Your task to perform on an android device: Search for "bose quietcomfort 35" on target, select the first entry, add it to the cart, then select checkout. Image 0: 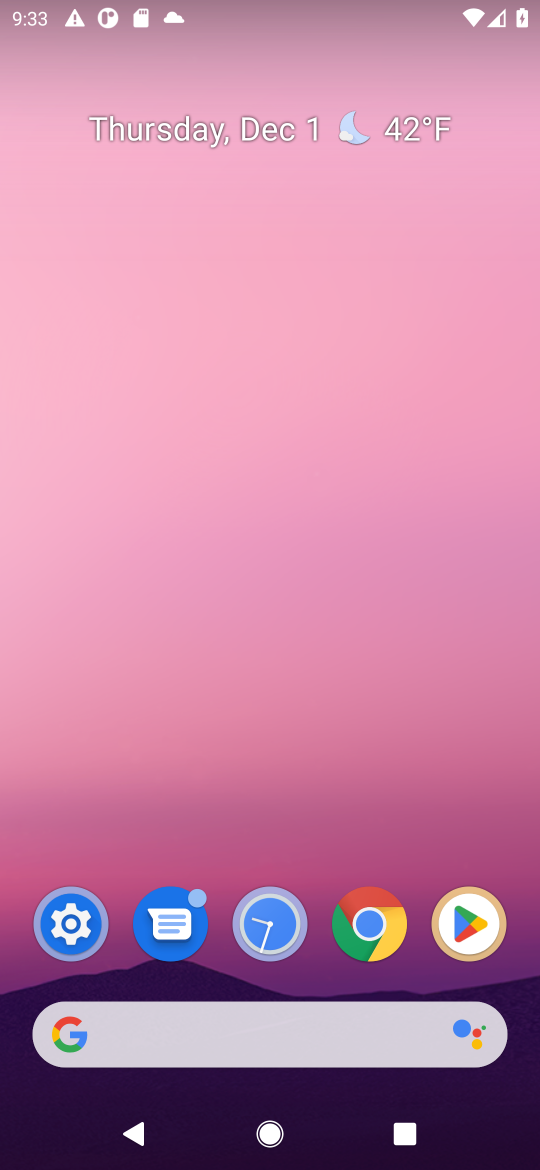
Step 0: click (313, 1037)
Your task to perform on an android device: Search for "bose quietcomfort 35" on target, select the first entry, add it to the cart, then select checkout. Image 1: 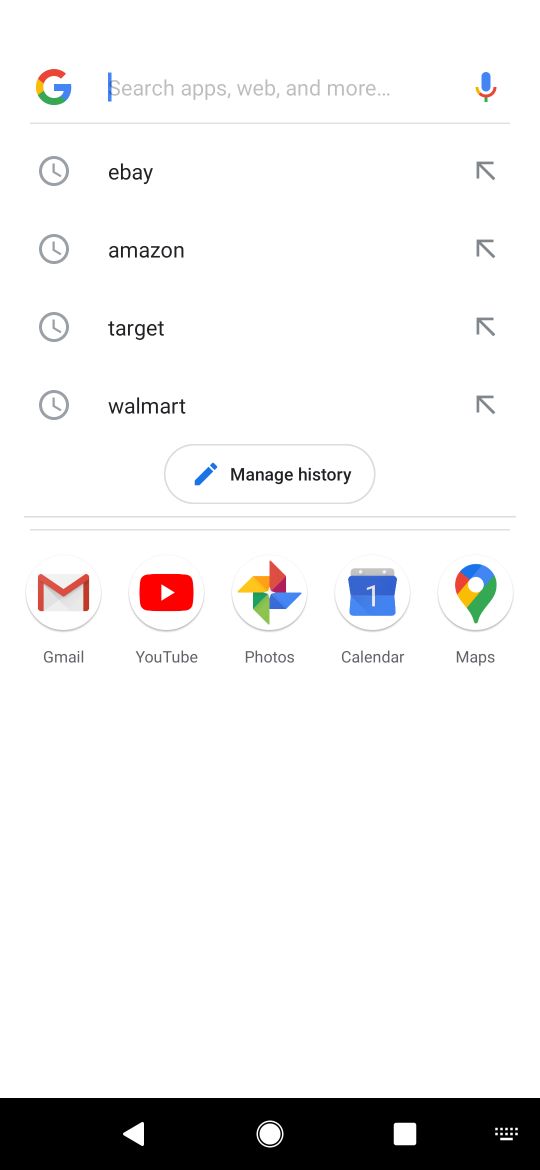
Step 1: type "bose quitconfiort"
Your task to perform on an android device: Search for "bose quietcomfort 35" on target, select the first entry, add it to the cart, then select checkout. Image 2: 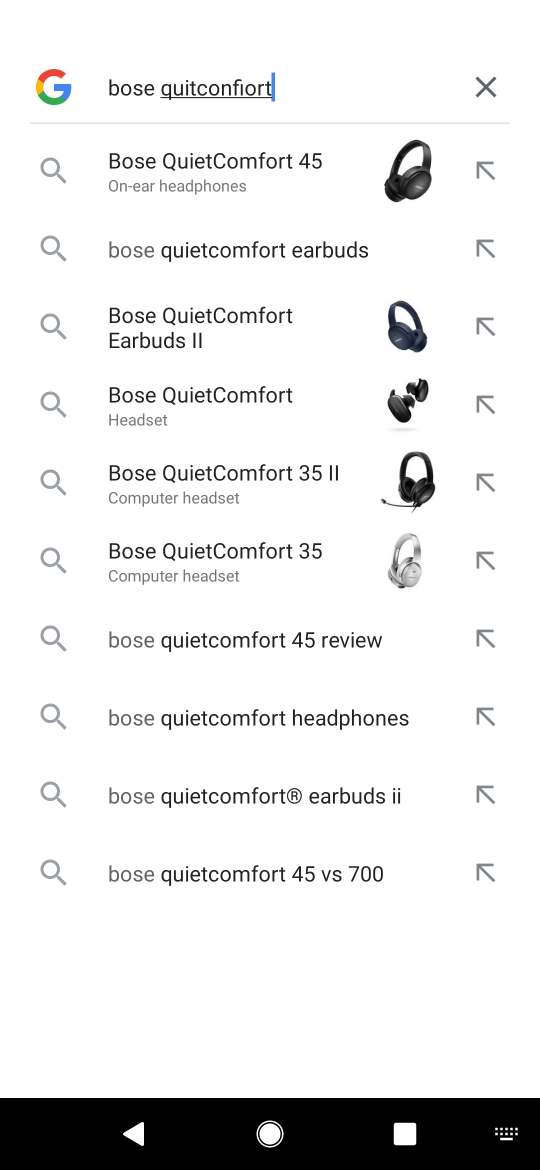
Step 2: click (268, 166)
Your task to perform on an android device: Search for "bose quietcomfort 35" on target, select the first entry, add it to the cart, then select checkout. Image 3: 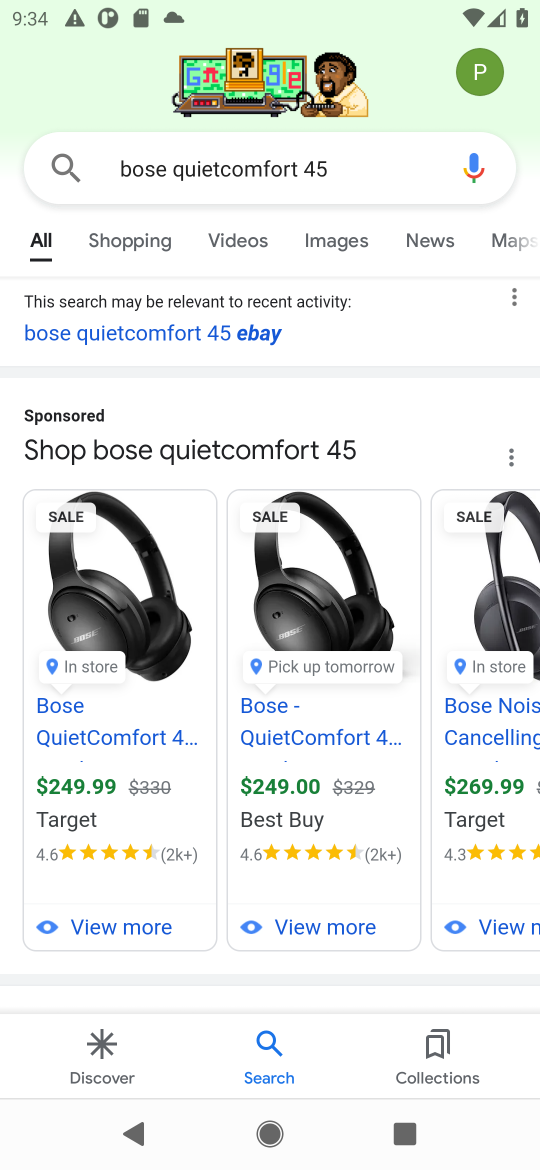
Step 3: task complete